Your task to perform on an android device: Open Chrome and go to the settings page Image 0: 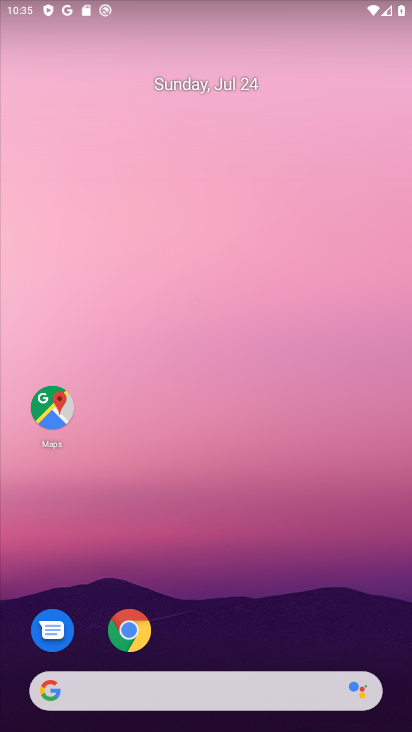
Step 0: click (140, 632)
Your task to perform on an android device: Open Chrome and go to the settings page Image 1: 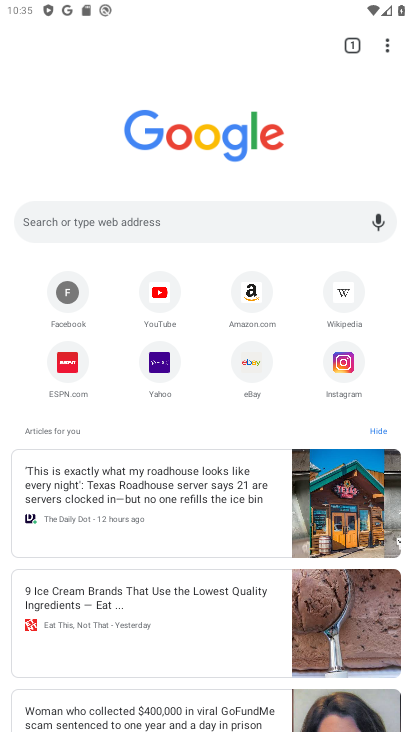
Step 1: click (384, 46)
Your task to perform on an android device: Open Chrome and go to the settings page Image 2: 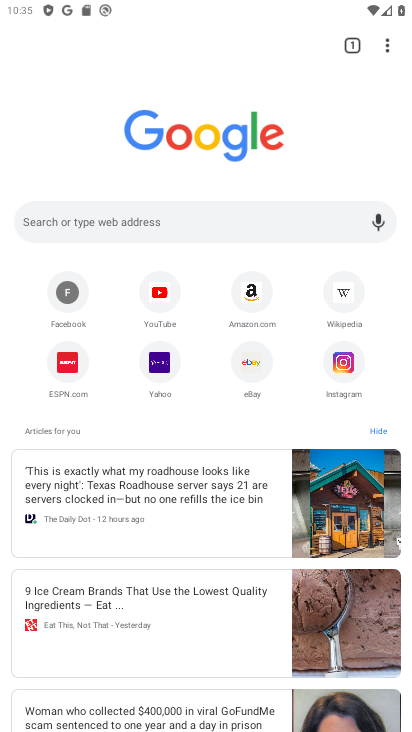
Step 2: task complete